Your task to perform on an android device: Go to Wikipedia Image 0: 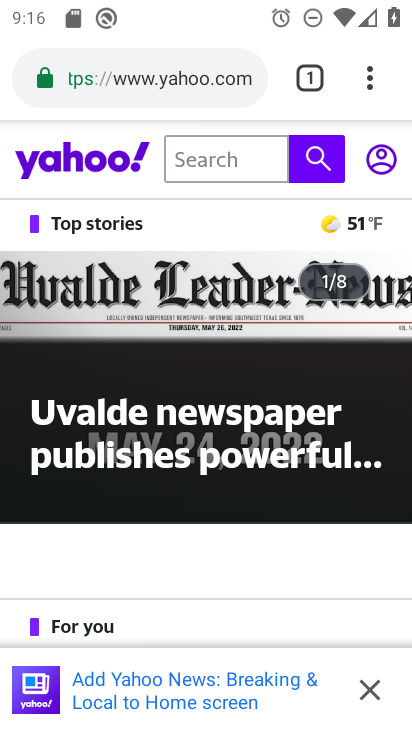
Step 0: press home button
Your task to perform on an android device: Go to Wikipedia Image 1: 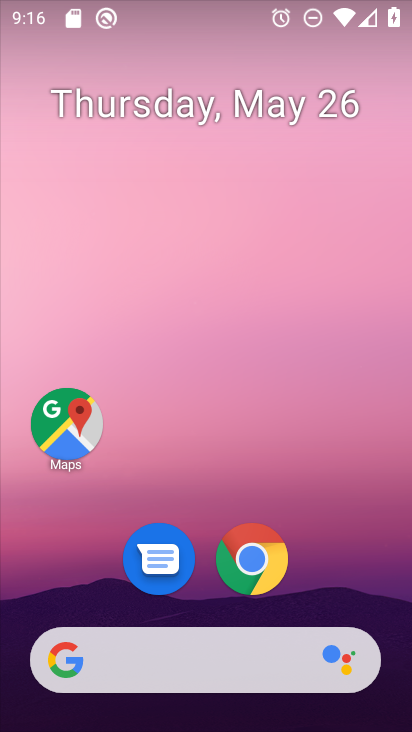
Step 1: click (271, 558)
Your task to perform on an android device: Go to Wikipedia Image 2: 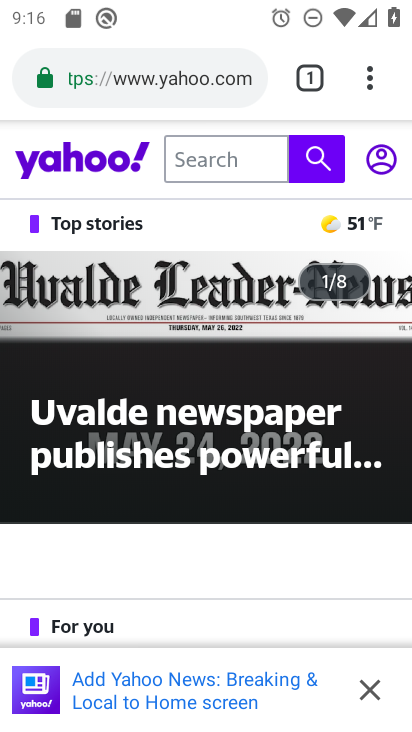
Step 2: press back button
Your task to perform on an android device: Go to Wikipedia Image 3: 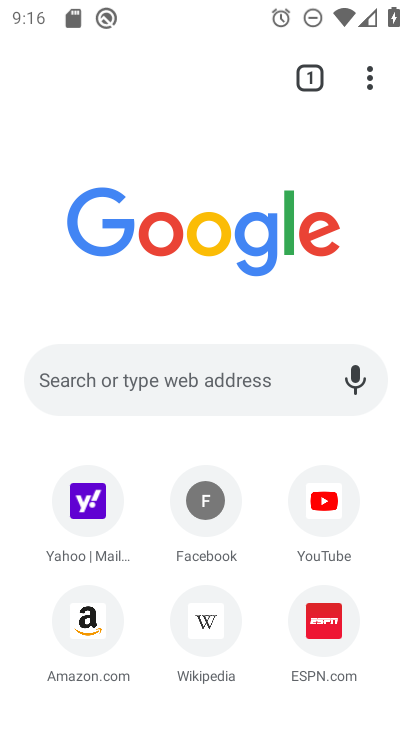
Step 3: click (203, 631)
Your task to perform on an android device: Go to Wikipedia Image 4: 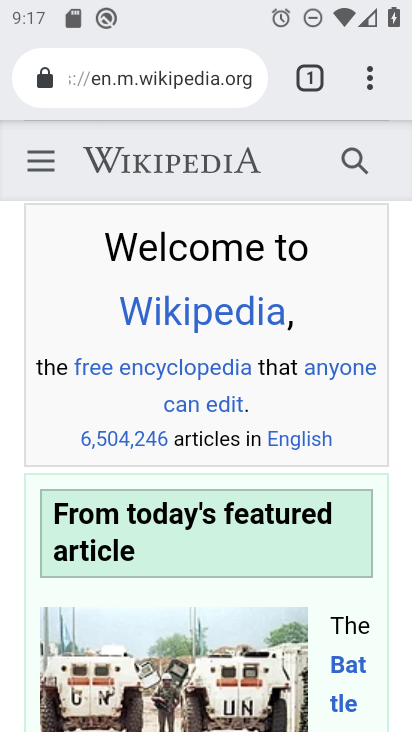
Step 4: task complete